Your task to perform on an android device: change notifications settings Image 0: 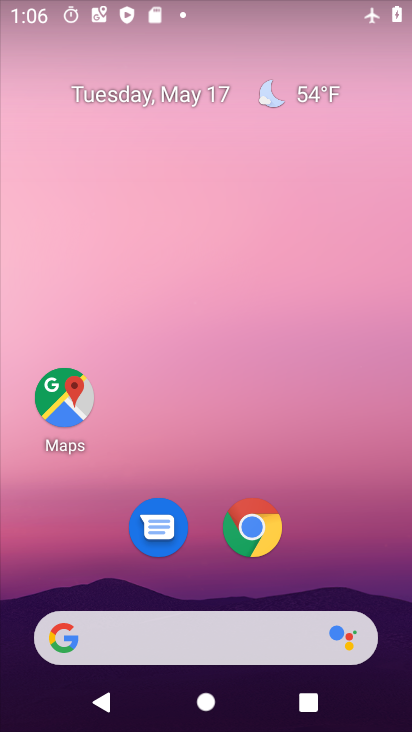
Step 0: drag from (297, 668) to (271, 221)
Your task to perform on an android device: change notifications settings Image 1: 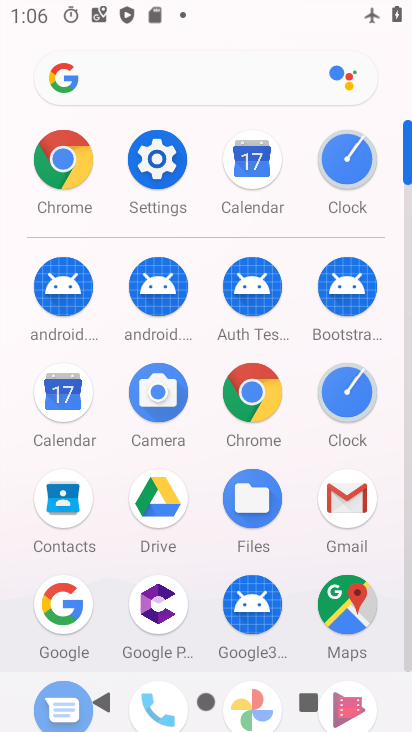
Step 1: click (188, 162)
Your task to perform on an android device: change notifications settings Image 2: 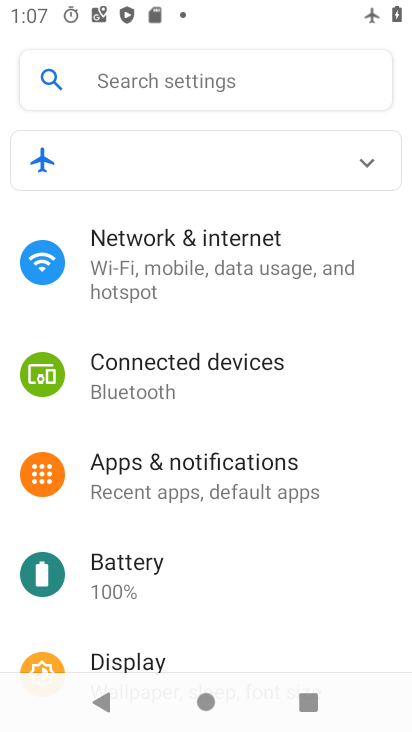
Step 2: click (134, 75)
Your task to perform on an android device: change notifications settings Image 3: 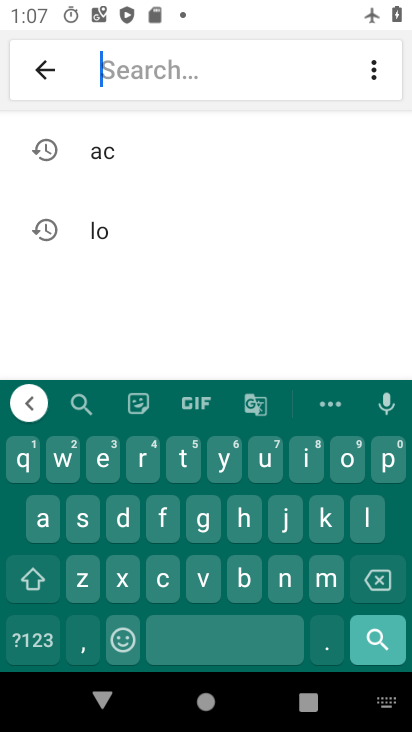
Step 3: click (290, 591)
Your task to perform on an android device: change notifications settings Image 4: 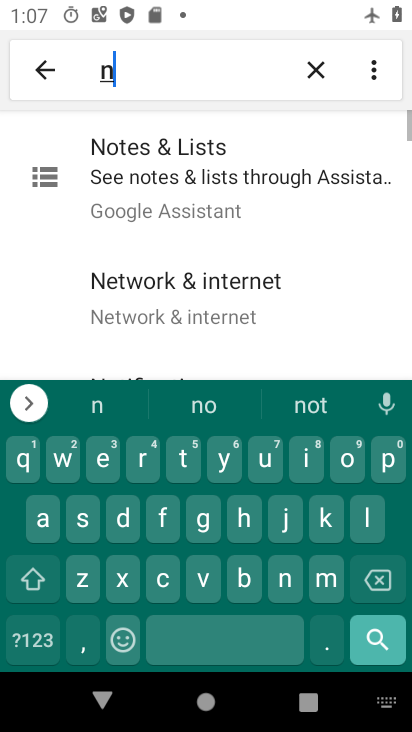
Step 4: click (355, 472)
Your task to perform on an android device: change notifications settings Image 5: 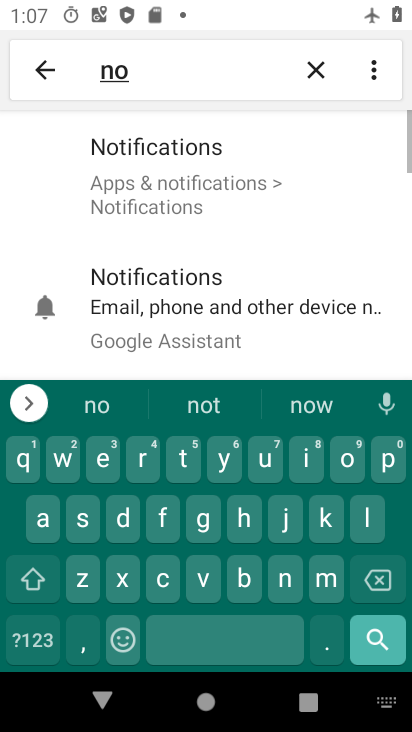
Step 5: click (198, 190)
Your task to perform on an android device: change notifications settings Image 6: 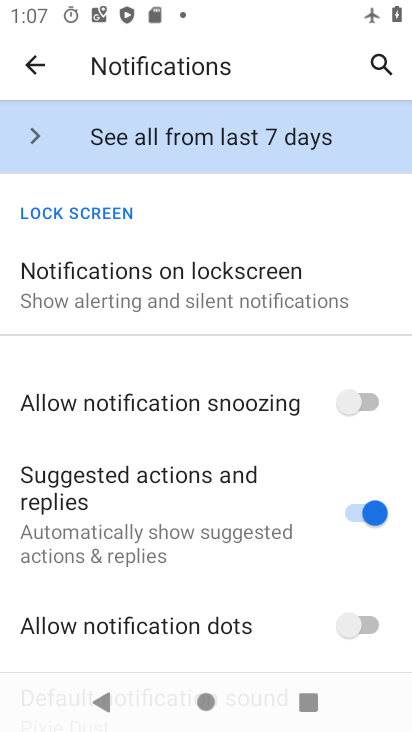
Step 6: click (186, 269)
Your task to perform on an android device: change notifications settings Image 7: 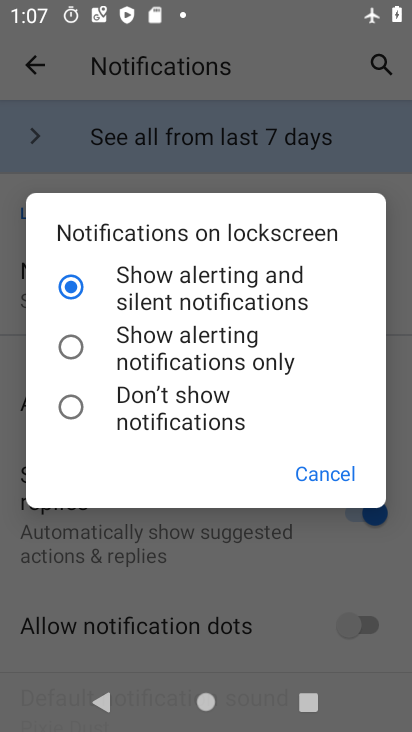
Step 7: click (144, 345)
Your task to perform on an android device: change notifications settings Image 8: 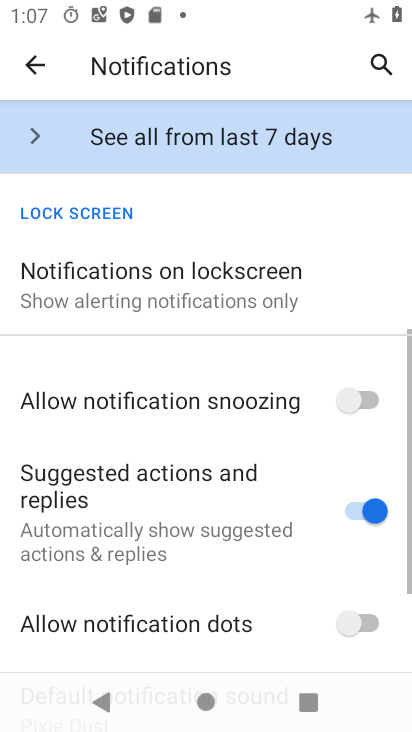
Step 8: task complete